Your task to perform on an android device: Turn off the flashlight Image 0: 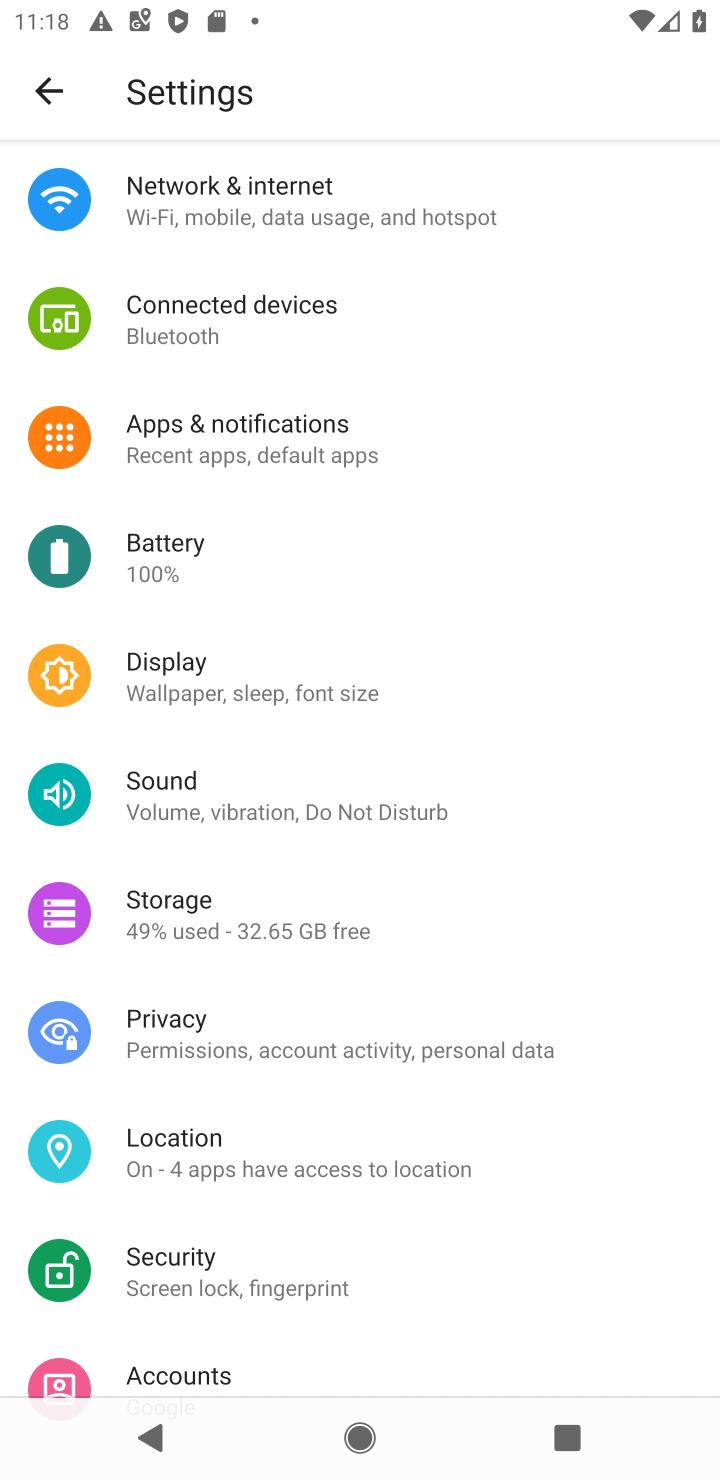
Step 0: press home button
Your task to perform on an android device: Turn off the flashlight Image 1: 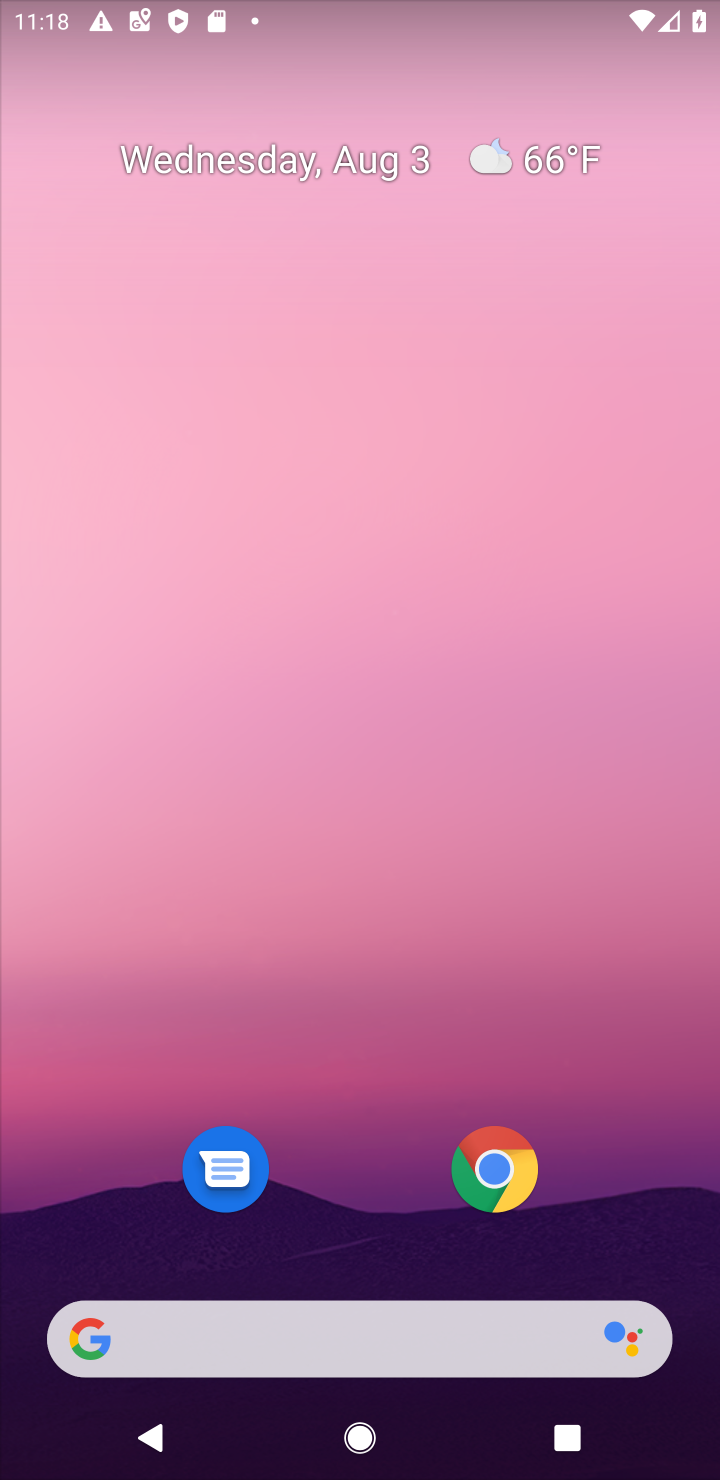
Step 1: task complete